Your task to perform on an android device: delete a single message in the gmail app Image 0: 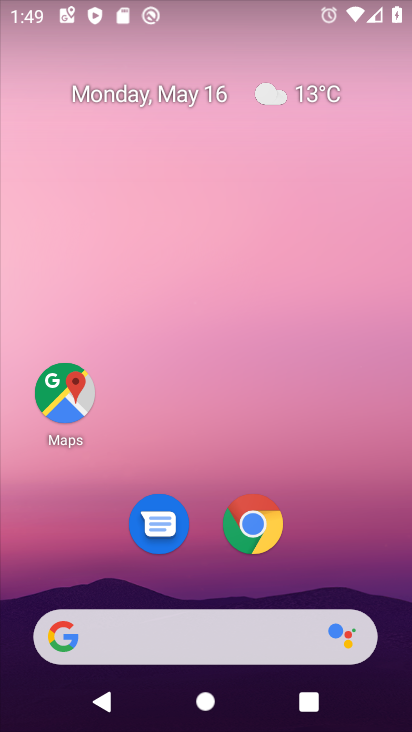
Step 0: drag from (339, 516) to (328, 93)
Your task to perform on an android device: delete a single message in the gmail app Image 1: 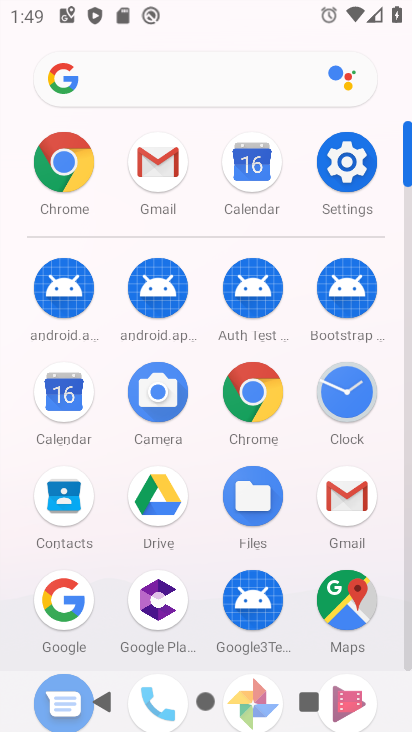
Step 1: click (169, 161)
Your task to perform on an android device: delete a single message in the gmail app Image 2: 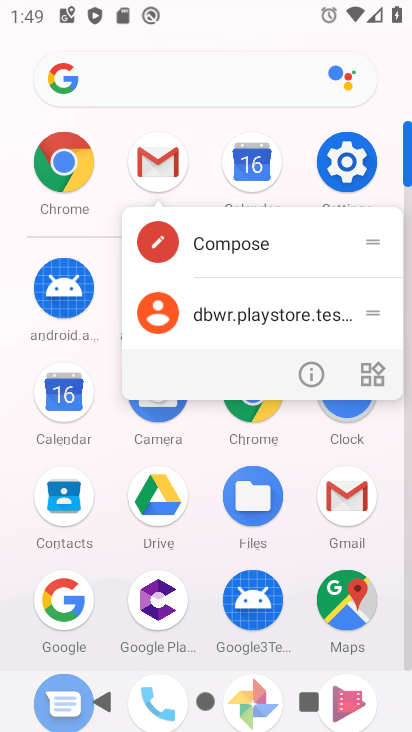
Step 2: click (163, 169)
Your task to perform on an android device: delete a single message in the gmail app Image 3: 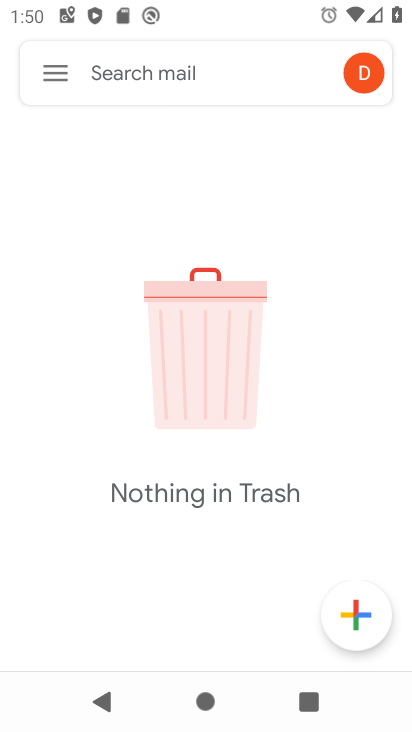
Step 3: click (47, 60)
Your task to perform on an android device: delete a single message in the gmail app Image 4: 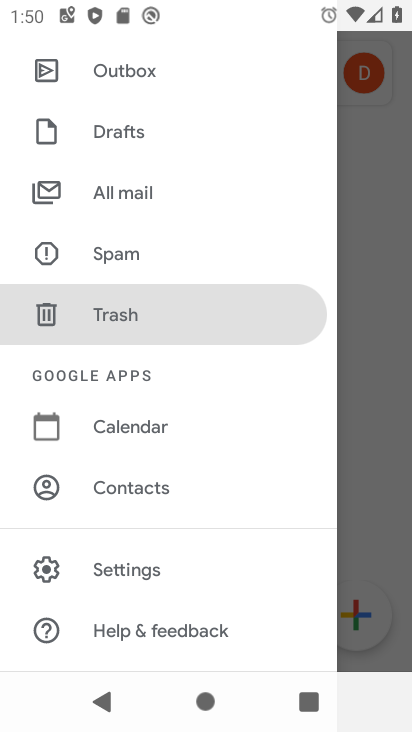
Step 4: click (141, 185)
Your task to perform on an android device: delete a single message in the gmail app Image 5: 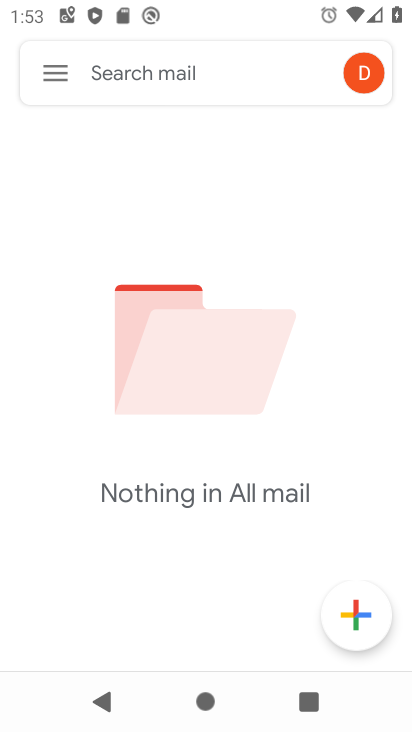
Step 5: task complete